Your task to perform on an android device: open app "Expedia: Hotels, Flights & Car" Image 0: 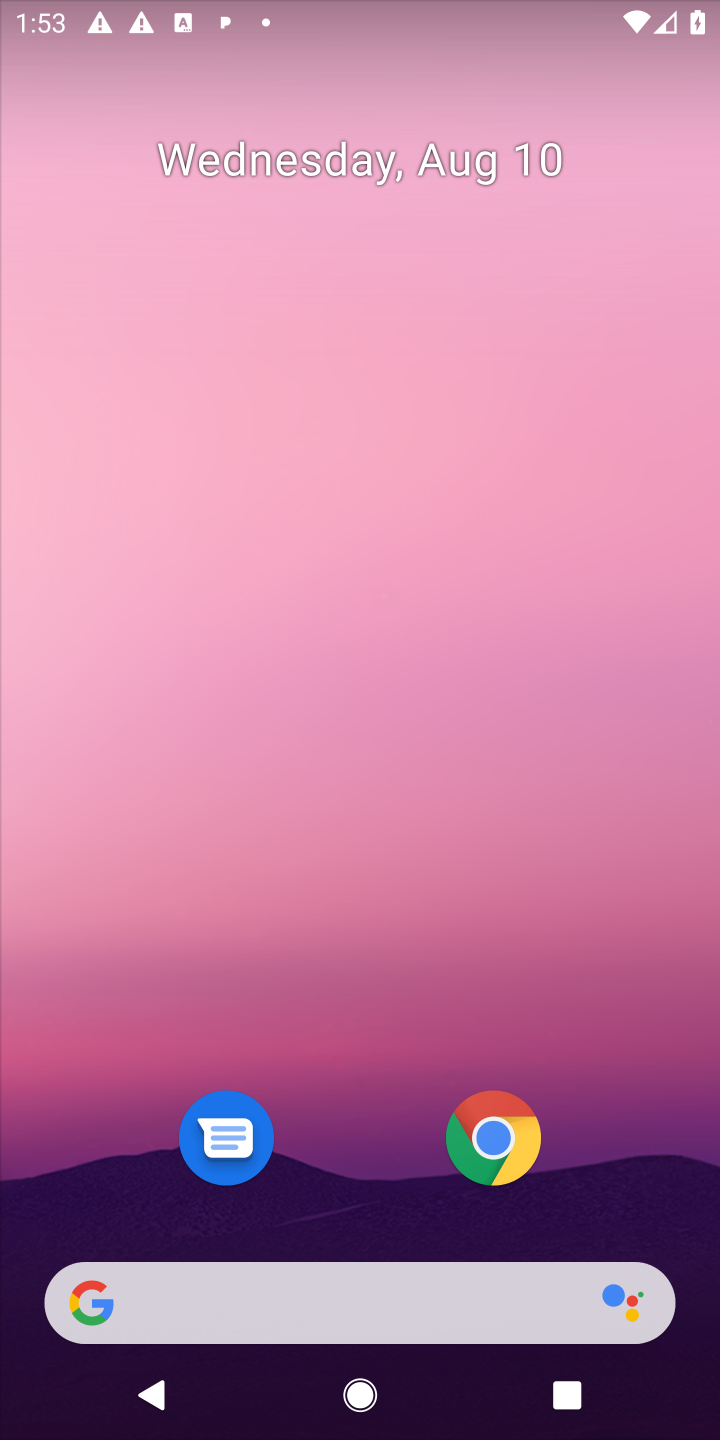
Step 0: drag from (591, 1182) to (580, 44)
Your task to perform on an android device: open app "Expedia: Hotels, Flights & Car" Image 1: 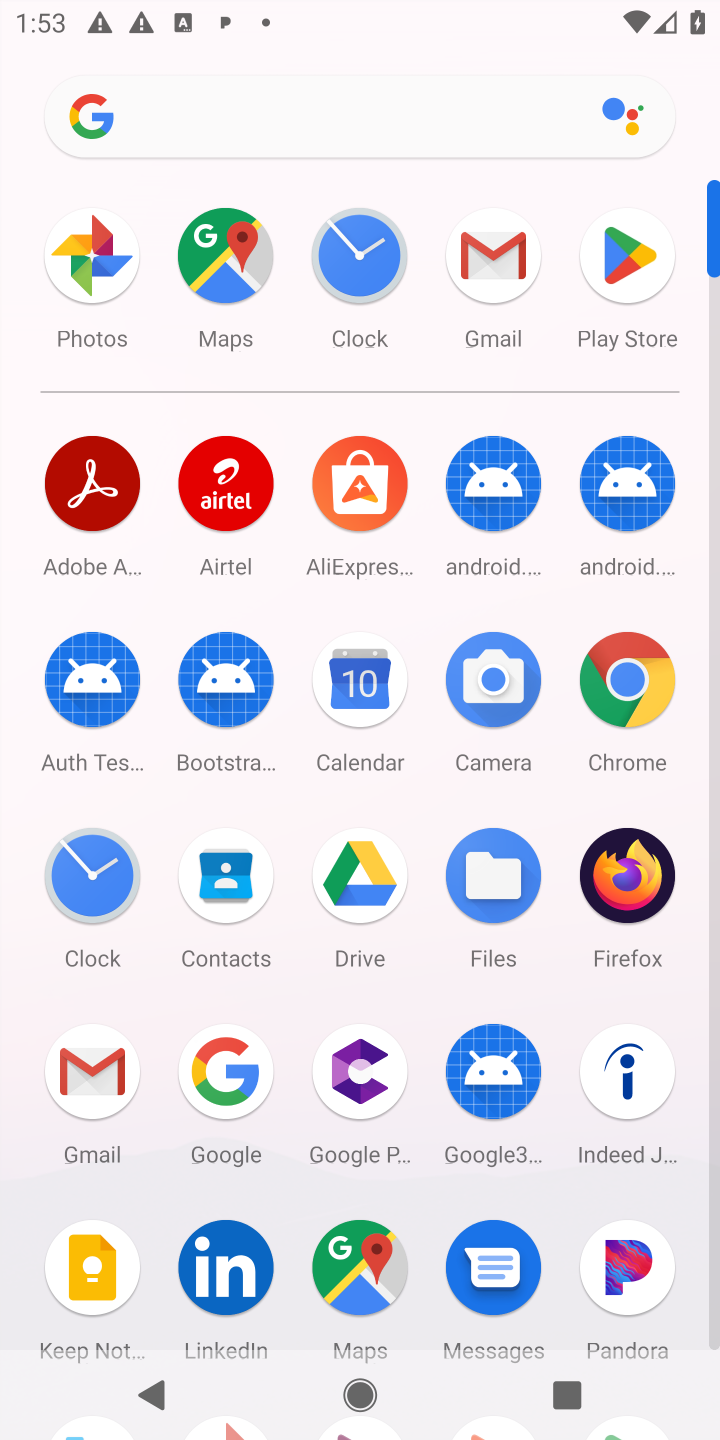
Step 1: click (620, 259)
Your task to perform on an android device: open app "Expedia: Hotels, Flights & Car" Image 2: 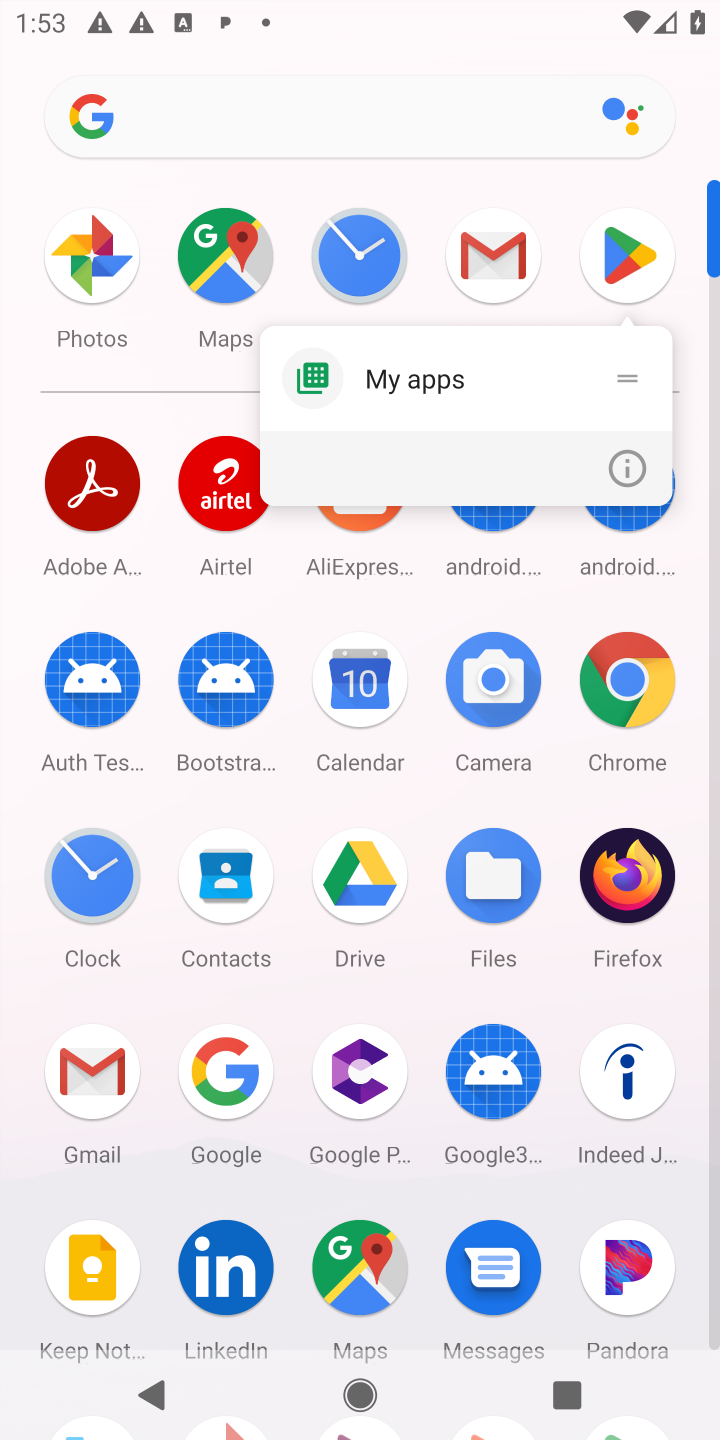
Step 2: click (636, 233)
Your task to perform on an android device: open app "Expedia: Hotels, Flights & Car" Image 3: 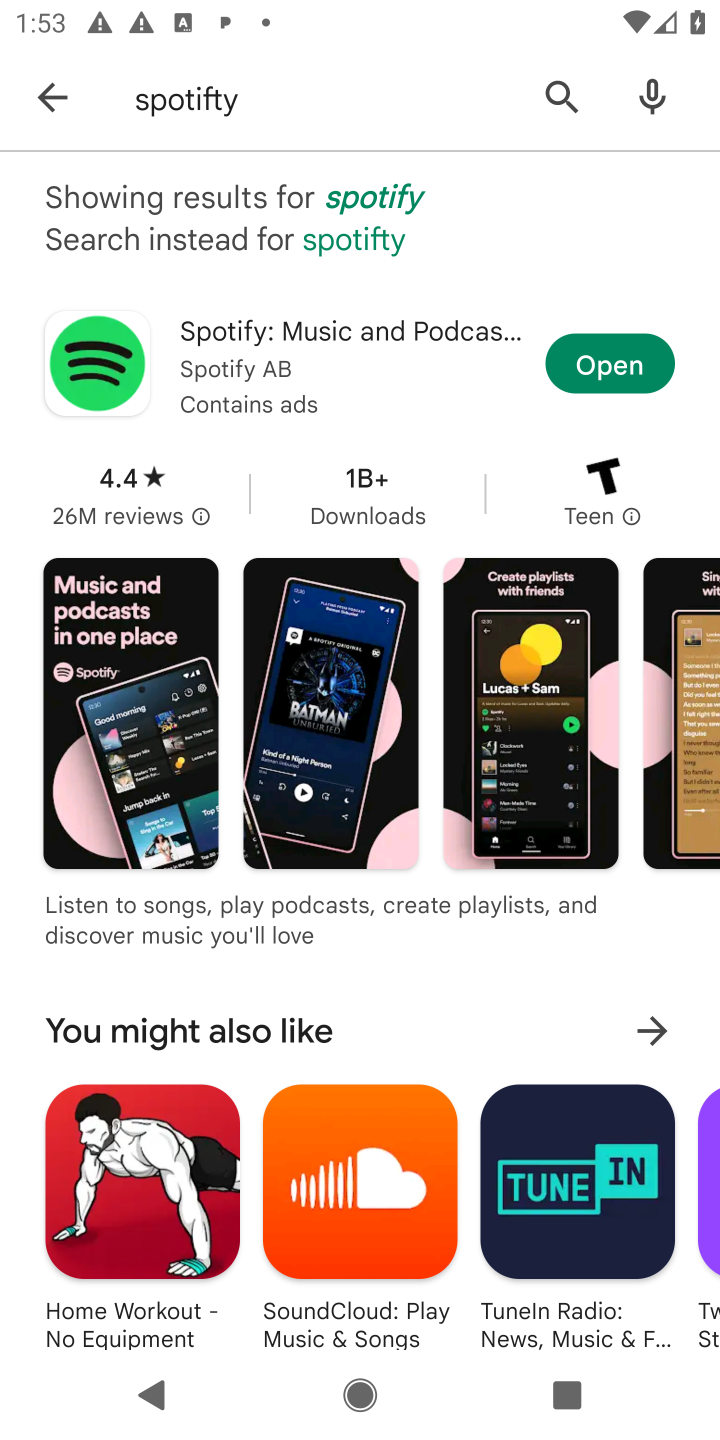
Step 3: click (548, 96)
Your task to perform on an android device: open app "Expedia: Hotels, Flights & Car" Image 4: 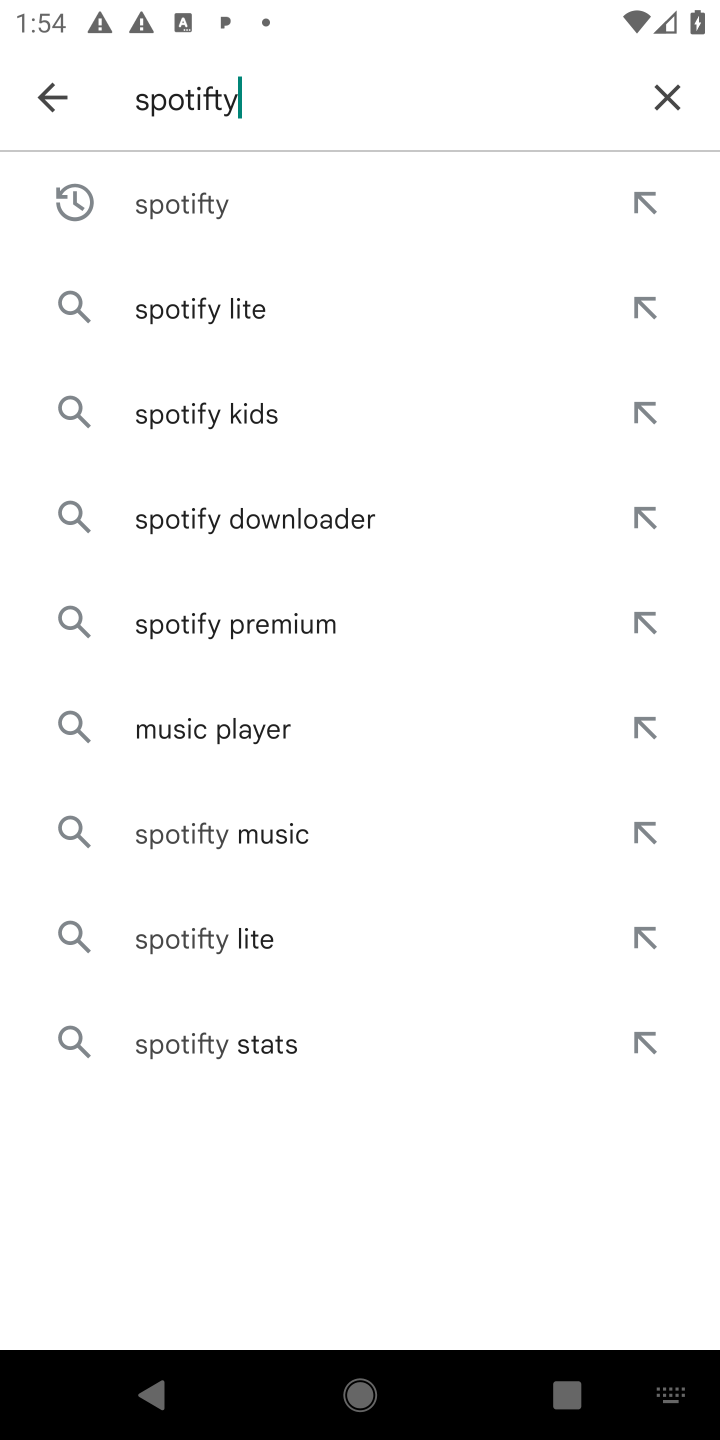
Step 4: click (663, 113)
Your task to perform on an android device: open app "Expedia: Hotels, Flights & Car" Image 5: 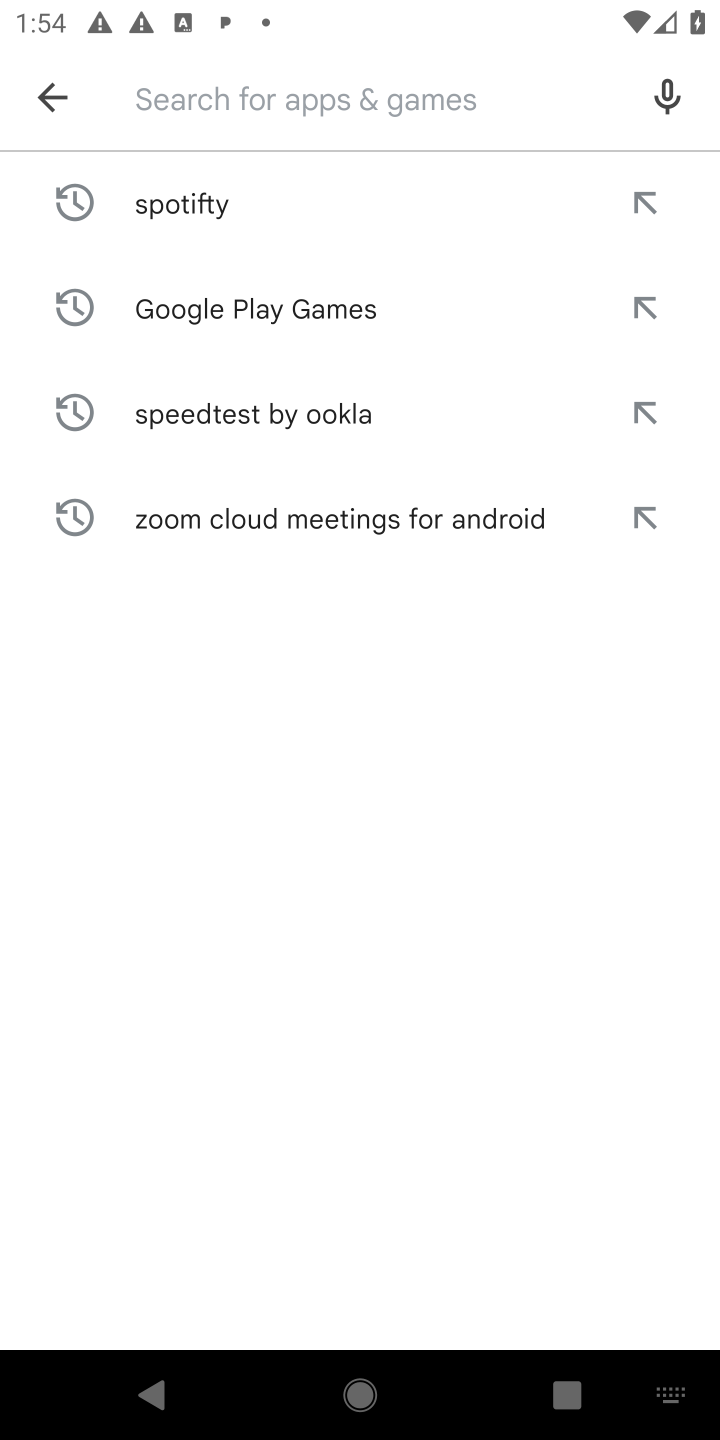
Step 5: type "Expedia: Hotels, Flights & Car"
Your task to perform on an android device: open app "Expedia: Hotels, Flights & Car" Image 6: 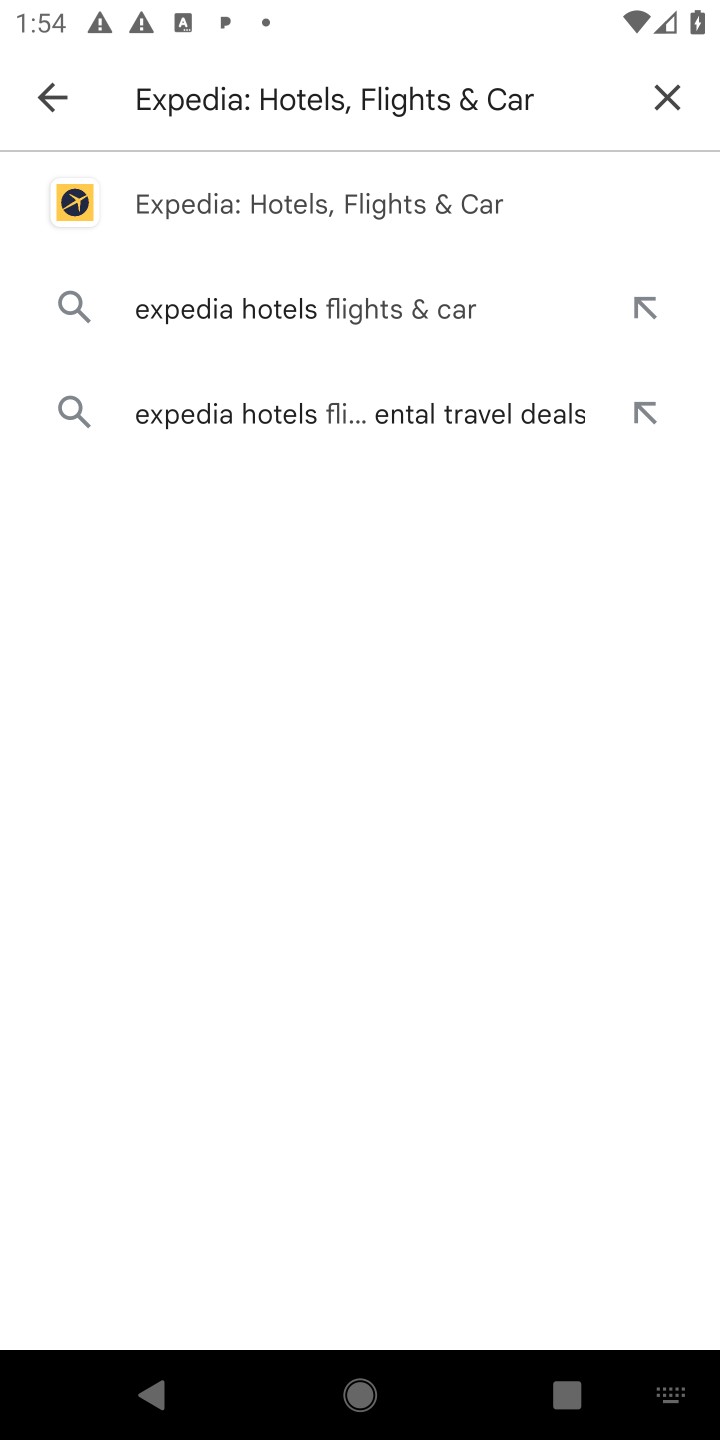
Step 6: click (414, 188)
Your task to perform on an android device: open app "Expedia: Hotels, Flights & Car" Image 7: 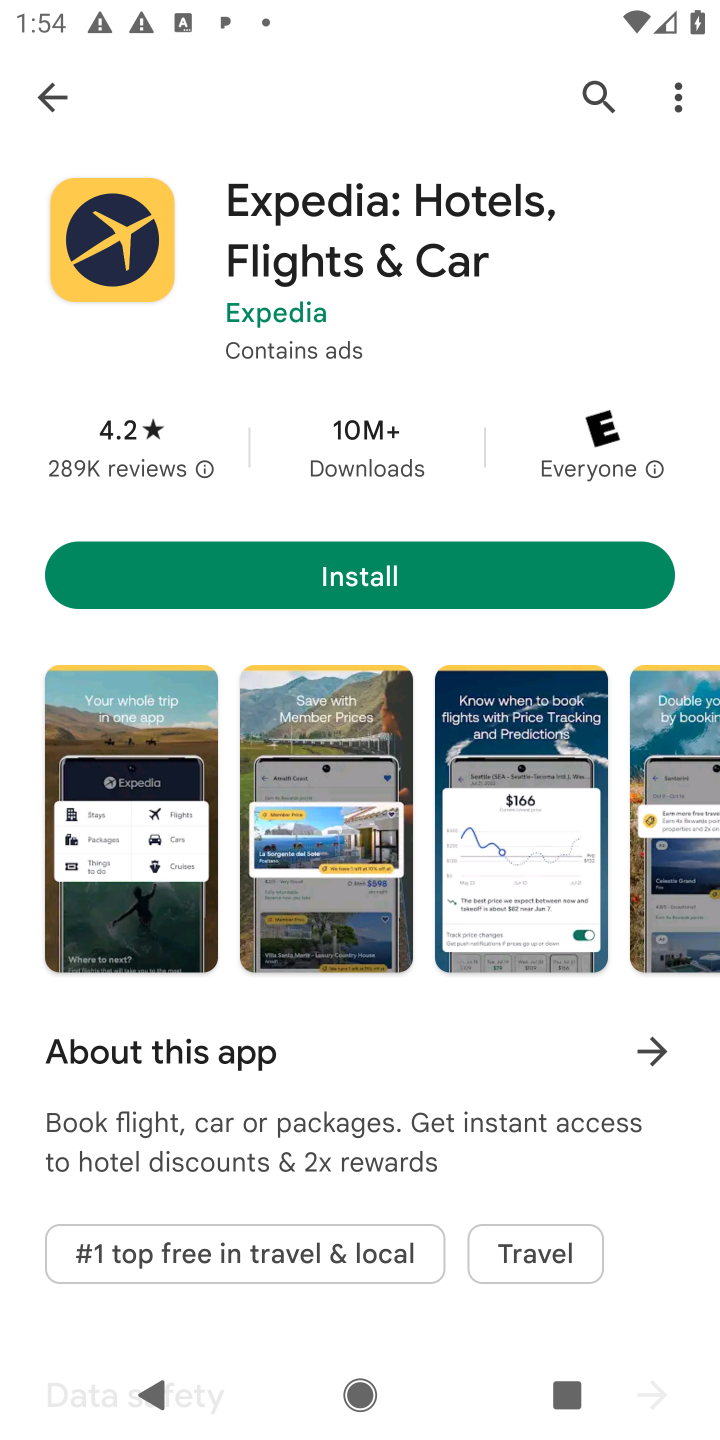
Step 7: task complete